Your task to perform on an android device: Open internet settings Image 0: 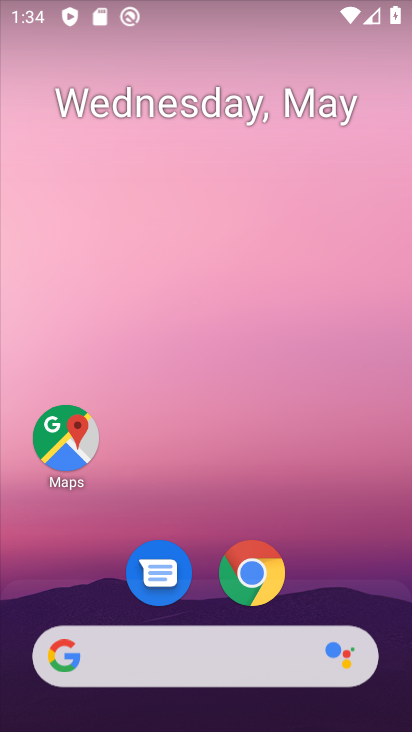
Step 0: drag from (135, 629) to (233, 94)
Your task to perform on an android device: Open internet settings Image 1: 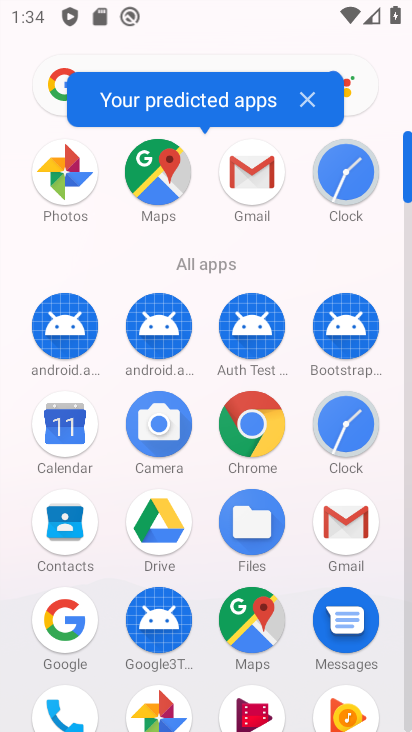
Step 1: drag from (180, 580) to (193, 454)
Your task to perform on an android device: Open internet settings Image 2: 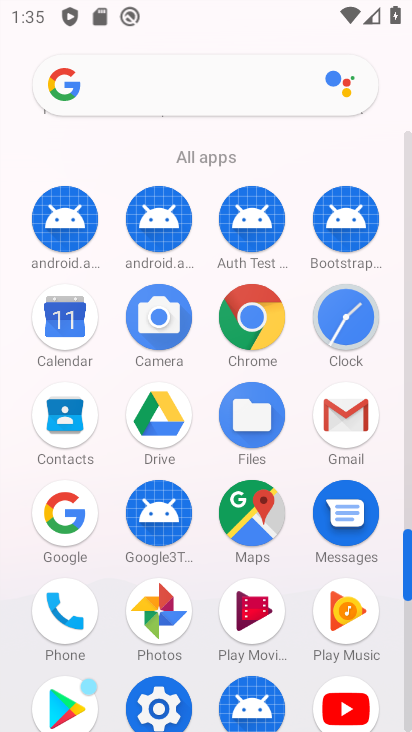
Step 2: click (169, 700)
Your task to perform on an android device: Open internet settings Image 3: 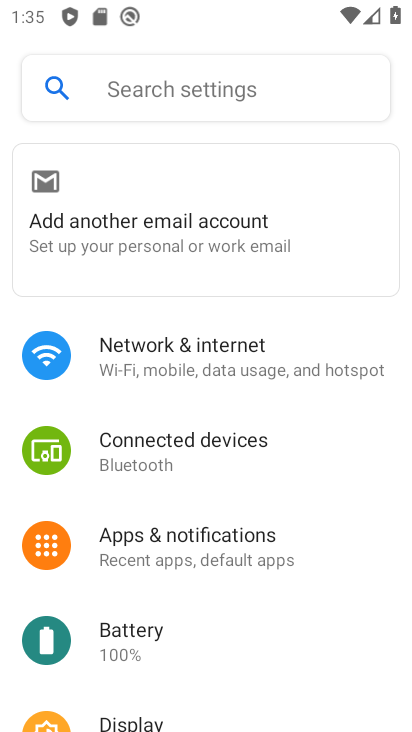
Step 3: click (239, 366)
Your task to perform on an android device: Open internet settings Image 4: 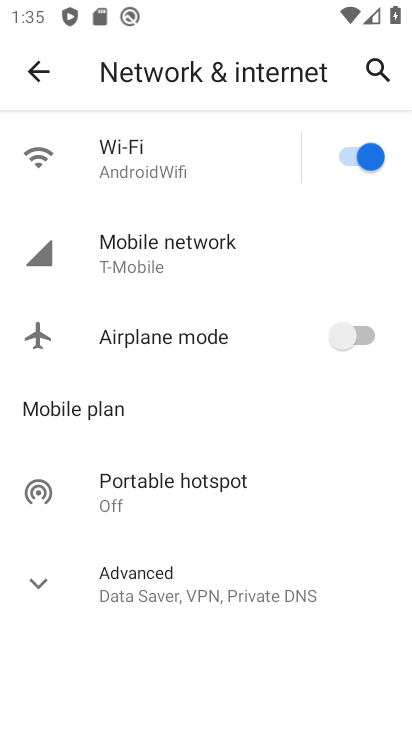
Step 4: click (276, 250)
Your task to perform on an android device: Open internet settings Image 5: 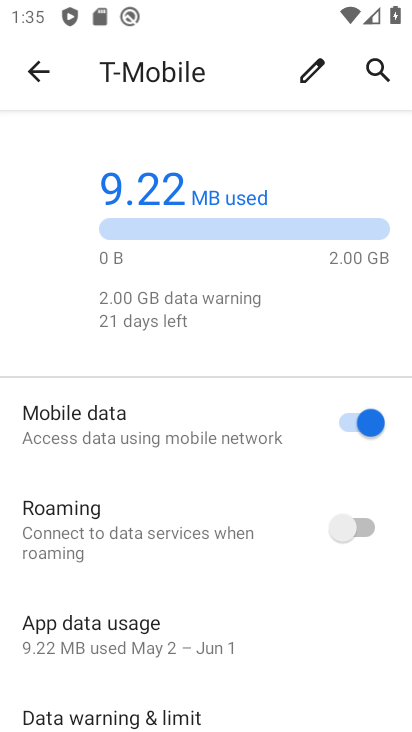
Step 5: task complete